Your task to perform on an android device: Open Google Image 0: 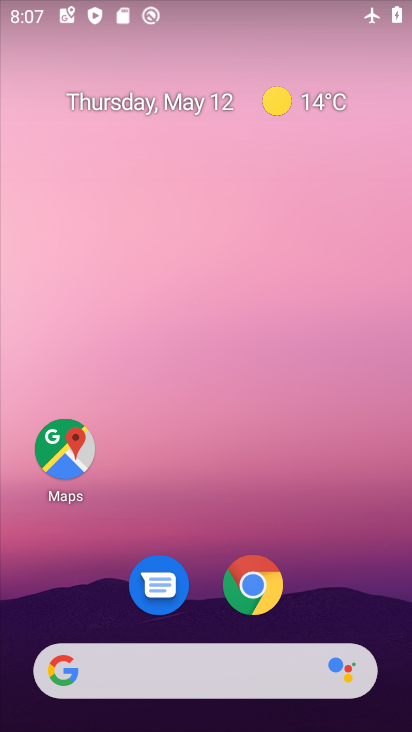
Step 0: click (108, 662)
Your task to perform on an android device: Open Google Image 1: 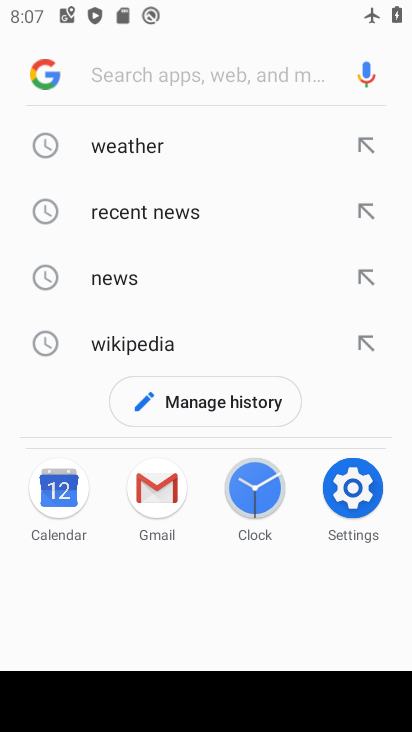
Step 1: click (40, 69)
Your task to perform on an android device: Open Google Image 2: 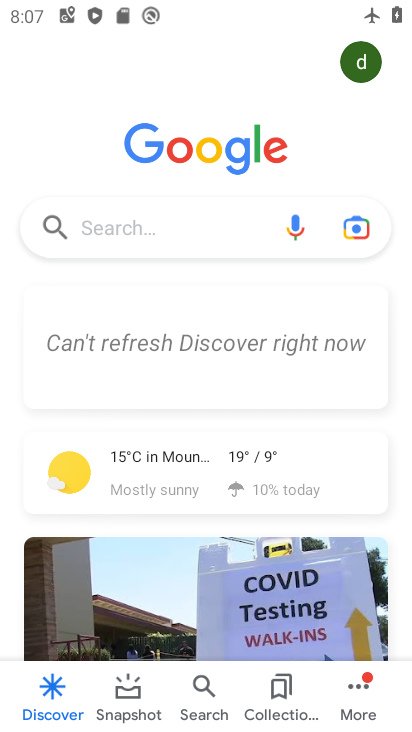
Step 2: task complete